Your task to perform on an android device: Open Google Image 0: 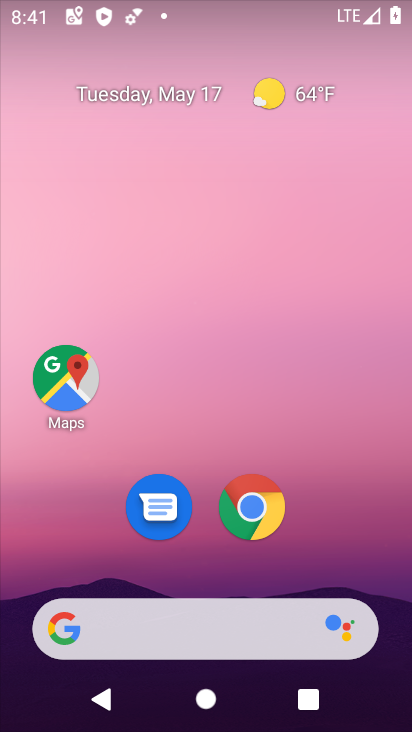
Step 0: drag from (326, 542) to (279, 112)
Your task to perform on an android device: Open Google Image 1: 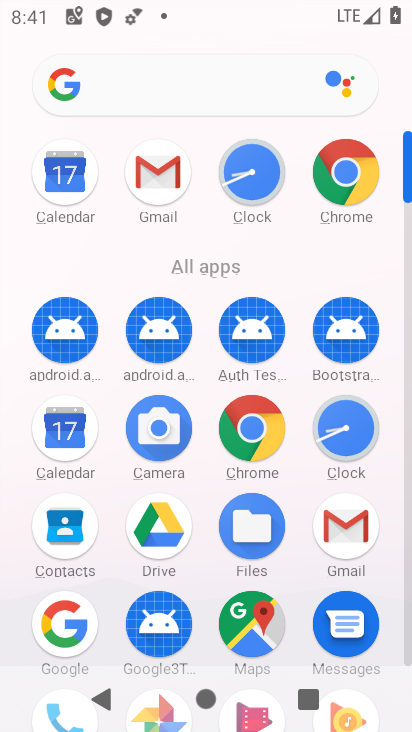
Step 1: click (55, 625)
Your task to perform on an android device: Open Google Image 2: 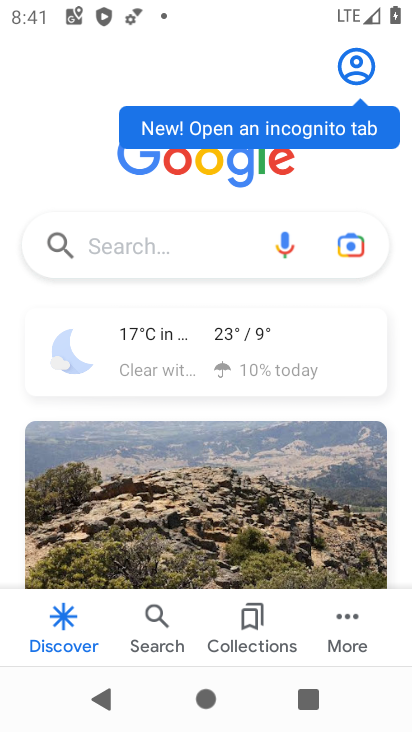
Step 2: task complete